Your task to perform on an android device: What is the news today? Image 0: 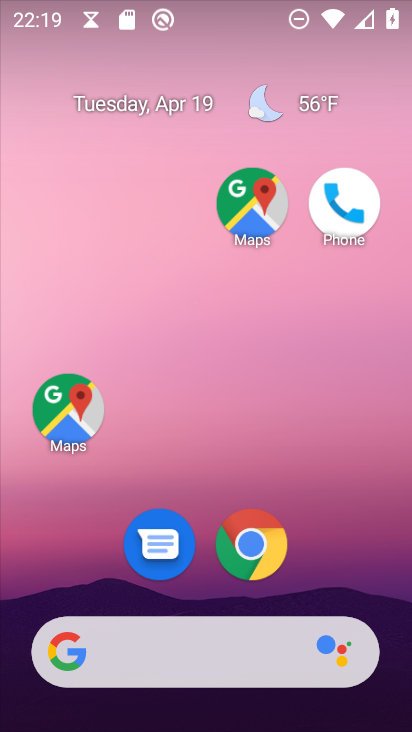
Step 0: drag from (0, 236) to (411, 253)
Your task to perform on an android device: What is the news today? Image 1: 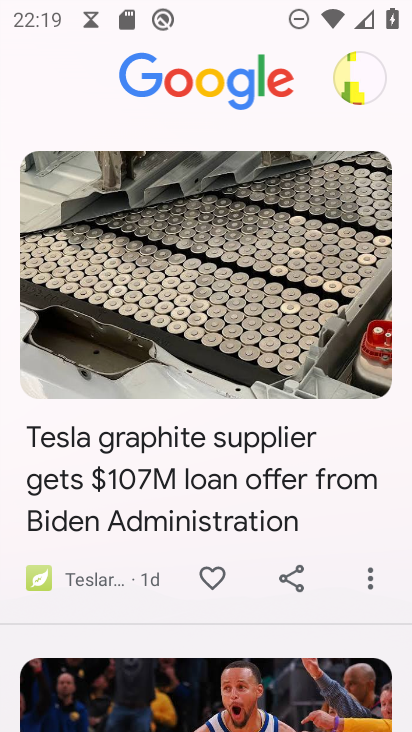
Step 1: task complete